Your task to perform on an android device: change alarm snooze length Image 0: 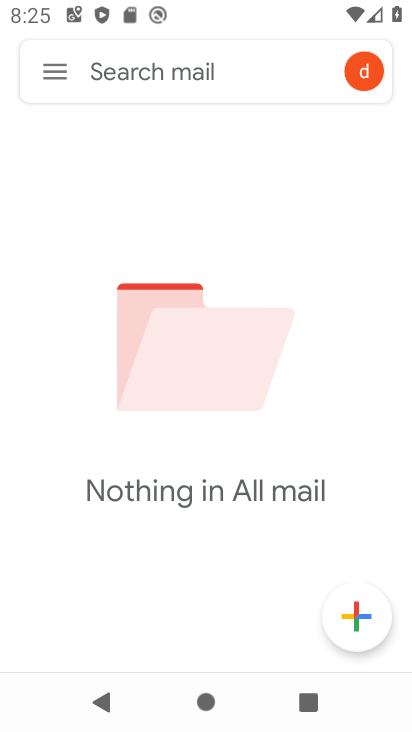
Step 0: press back button
Your task to perform on an android device: change alarm snooze length Image 1: 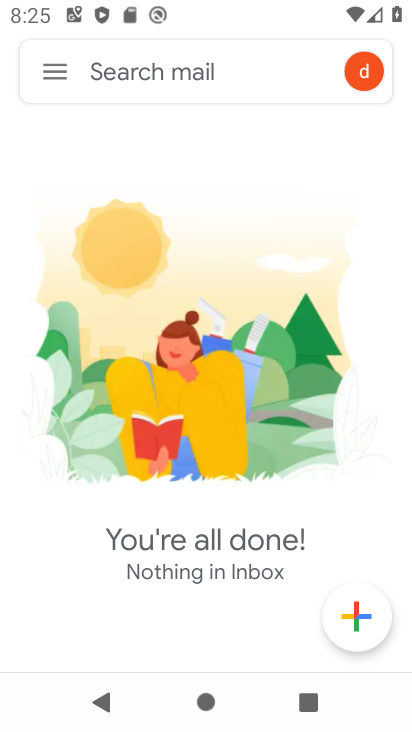
Step 1: press home button
Your task to perform on an android device: change alarm snooze length Image 2: 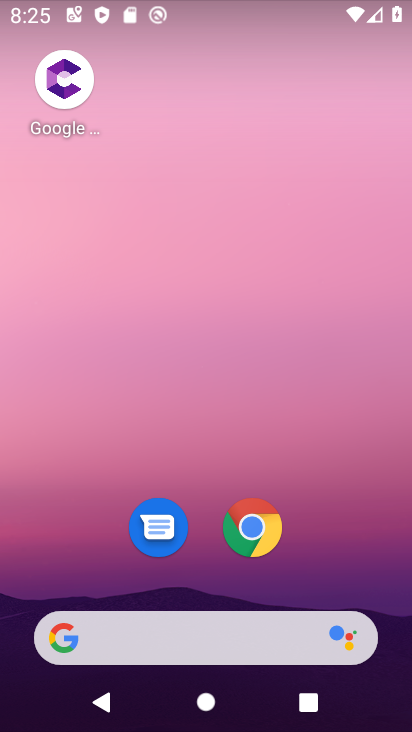
Step 2: drag from (66, 591) to (222, 175)
Your task to perform on an android device: change alarm snooze length Image 3: 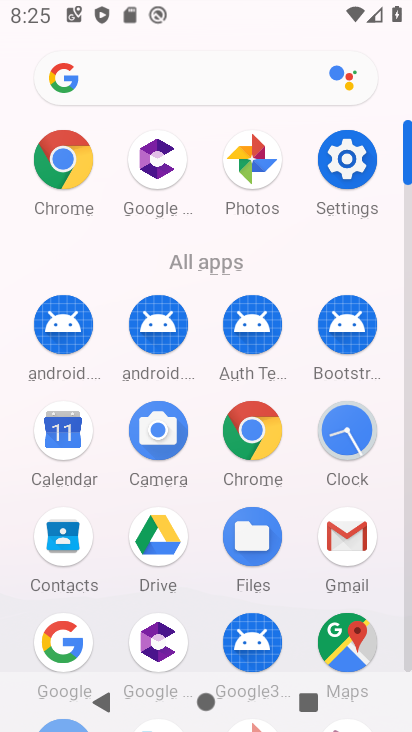
Step 3: click (365, 426)
Your task to perform on an android device: change alarm snooze length Image 4: 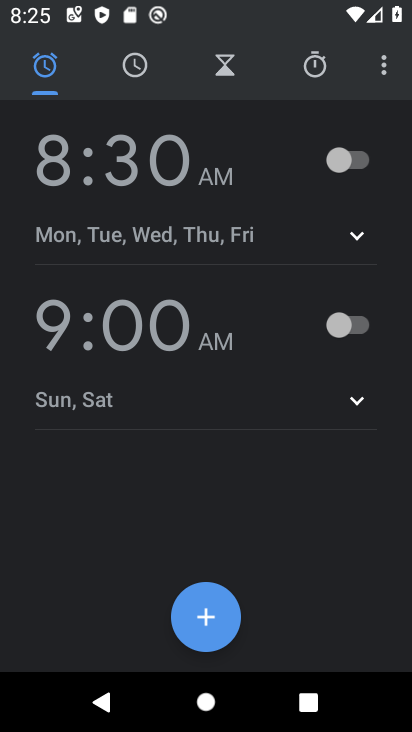
Step 4: click (379, 80)
Your task to perform on an android device: change alarm snooze length Image 5: 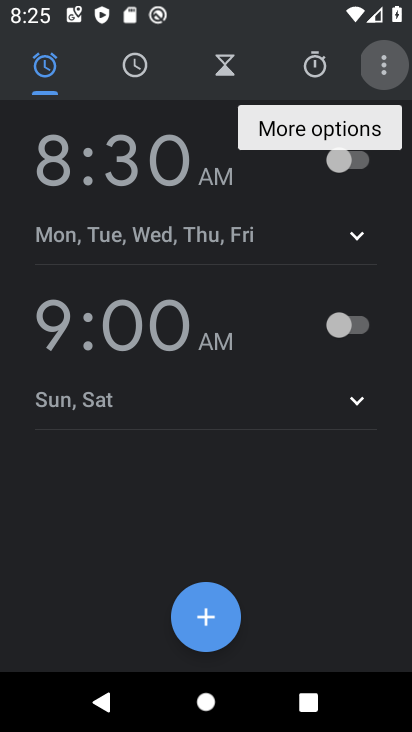
Step 5: click (390, 62)
Your task to perform on an android device: change alarm snooze length Image 6: 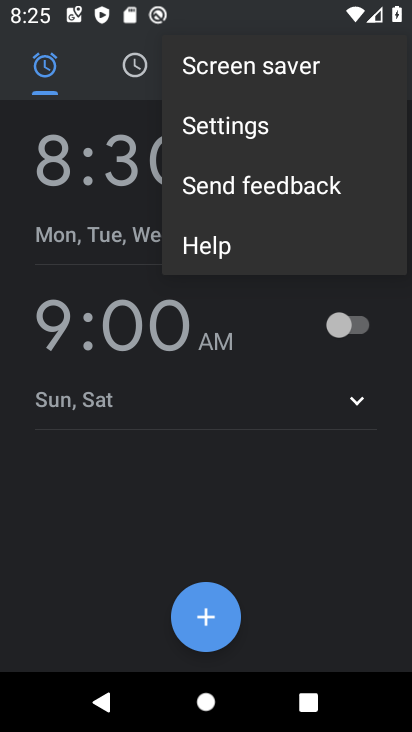
Step 6: click (327, 113)
Your task to perform on an android device: change alarm snooze length Image 7: 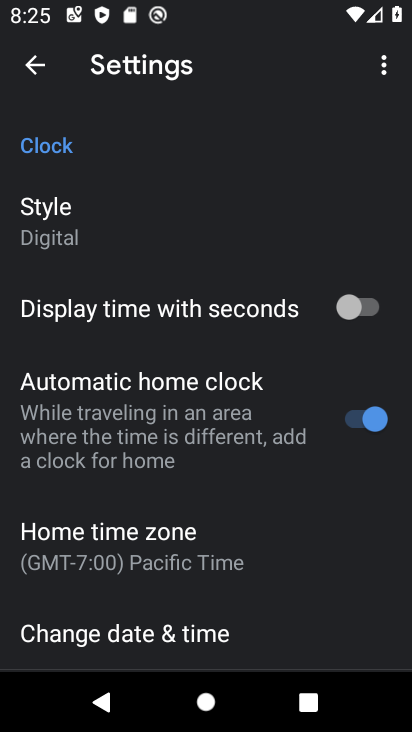
Step 7: drag from (213, 586) to (305, 154)
Your task to perform on an android device: change alarm snooze length Image 8: 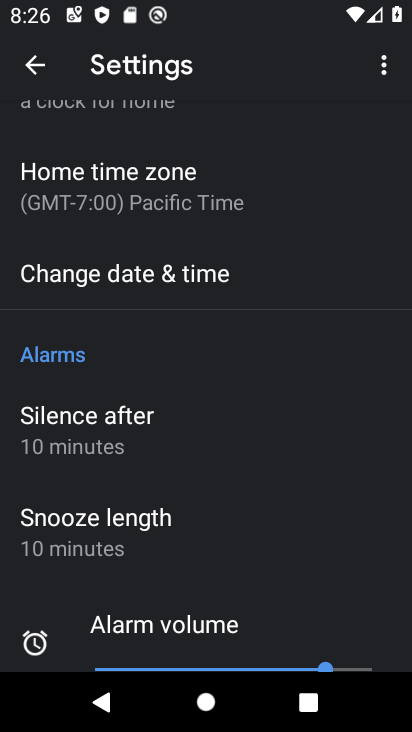
Step 8: click (206, 526)
Your task to perform on an android device: change alarm snooze length Image 9: 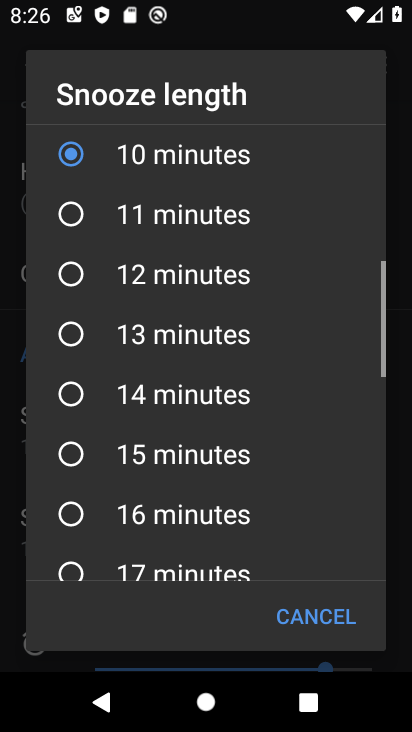
Step 9: click (164, 464)
Your task to perform on an android device: change alarm snooze length Image 10: 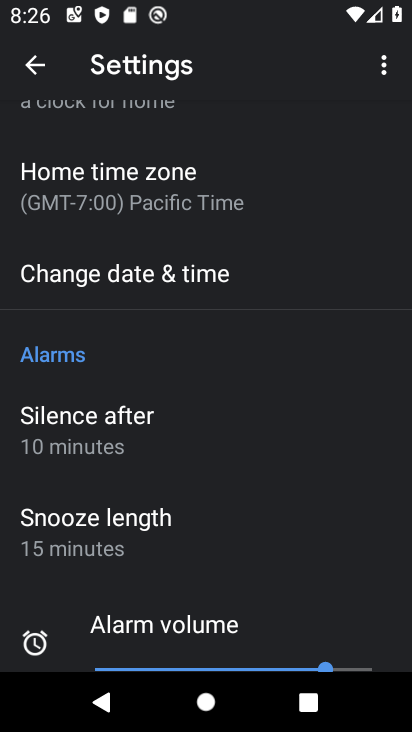
Step 10: task complete